Your task to perform on an android device: all mails in gmail Image 0: 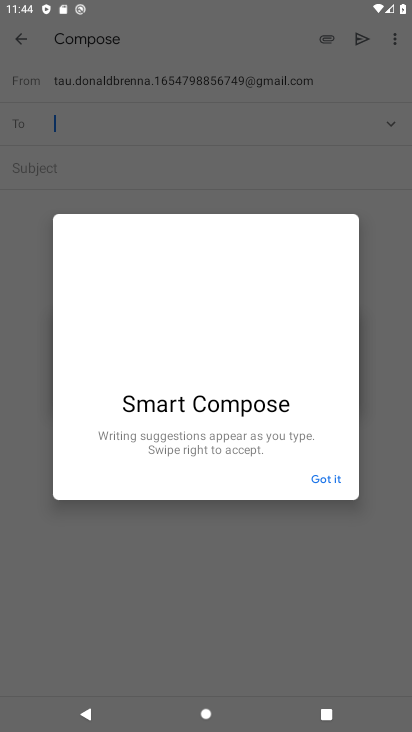
Step 0: press home button
Your task to perform on an android device: all mails in gmail Image 1: 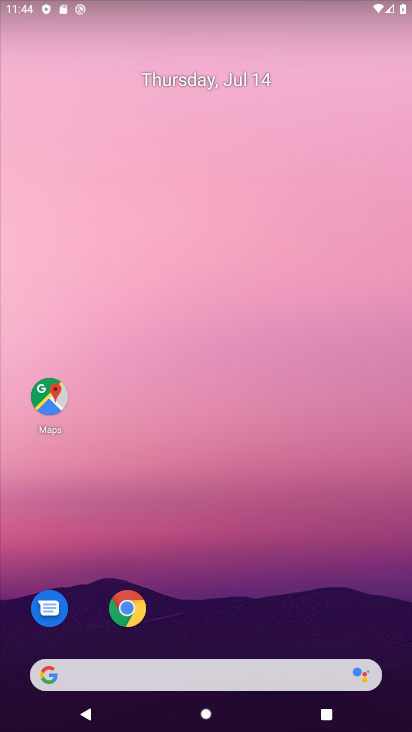
Step 1: drag from (233, 632) to (222, 150)
Your task to perform on an android device: all mails in gmail Image 2: 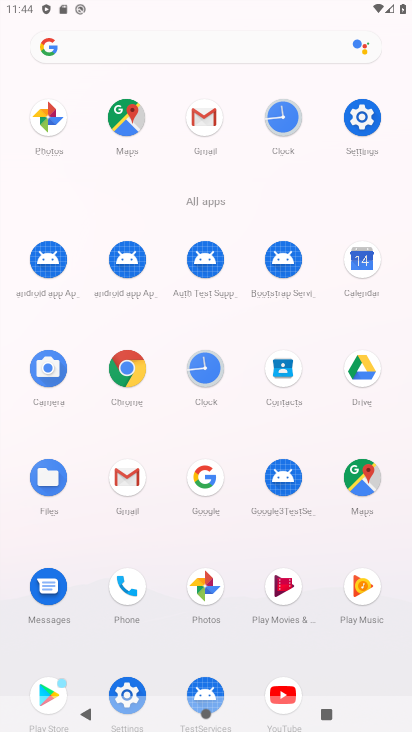
Step 2: click (207, 118)
Your task to perform on an android device: all mails in gmail Image 3: 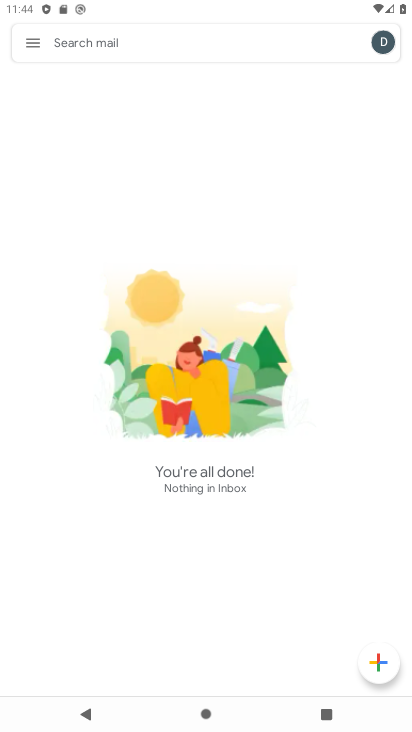
Step 3: click (34, 38)
Your task to perform on an android device: all mails in gmail Image 4: 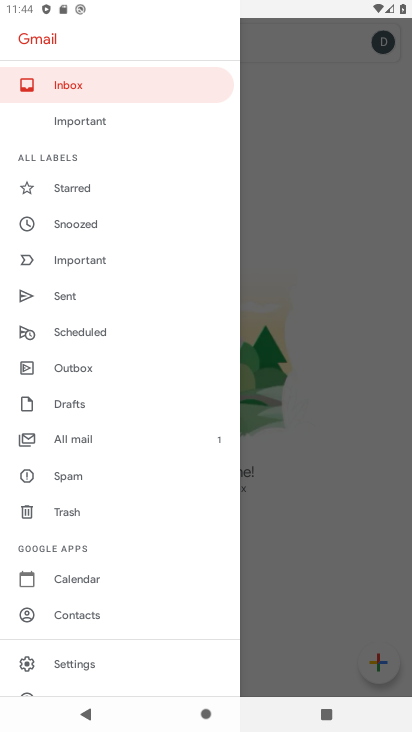
Step 4: click (73, 440)
Your task to perform on an android device: all mails in gmail Image 5: 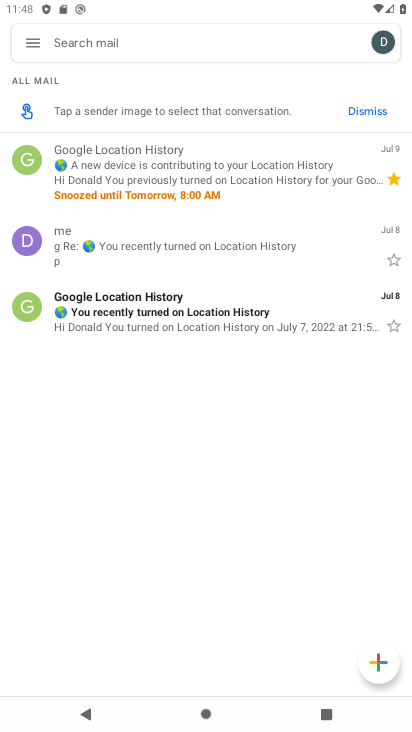
Step 5: task complete